Your task to perform on an android device: empty trash in the gmail app Image 0: 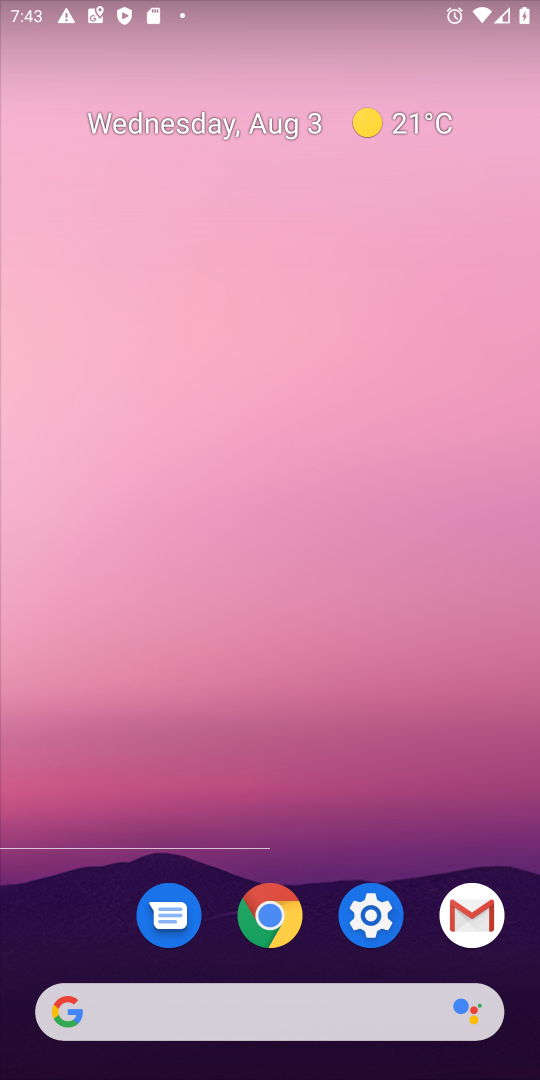
Step 0: drag from (387, 992) to (286, 236)
Your task to perform on an android device: empty trash in the gmail app Image 1: 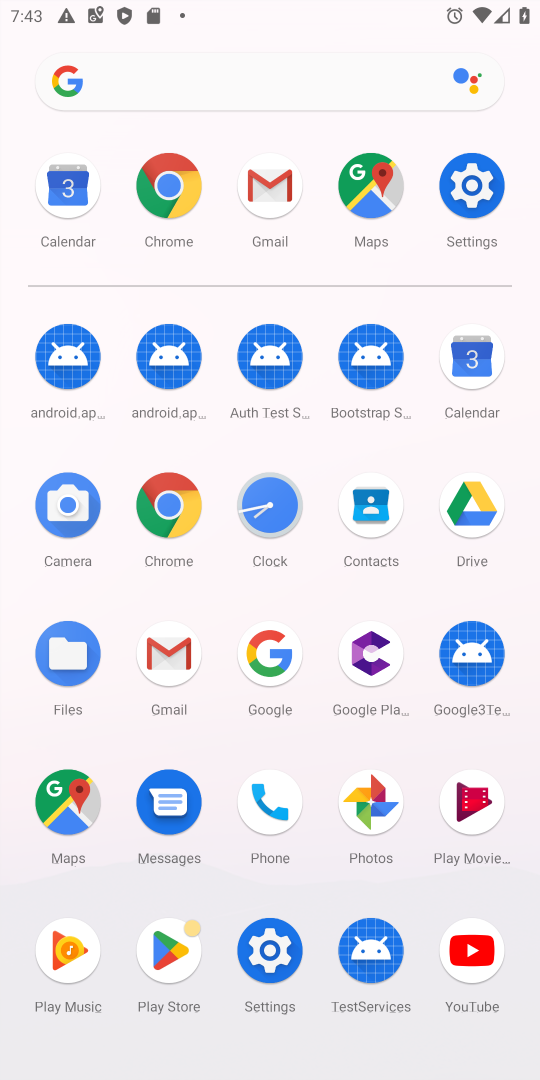
Step 1: click (168, 647)
Your task to perform on an android device: empty trash in the gmail app Image 2: 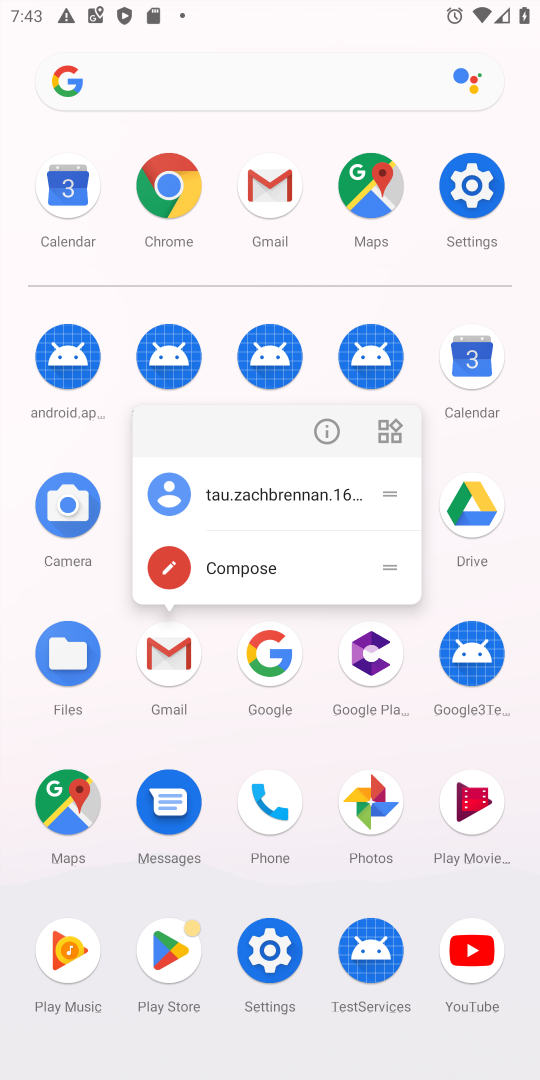
Step 2: click (168, 649)
Your task to perform on an android device: empty trash in the gmail app Image 3: 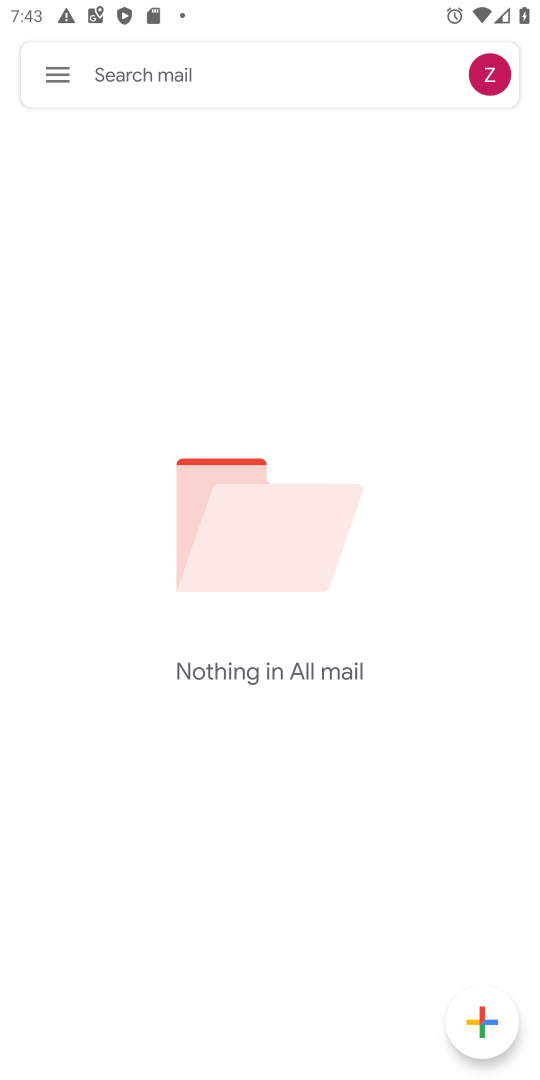
Step 3: click (62, 89)
Your task to perform on an android device: empty trash in the gmail app Image 4: 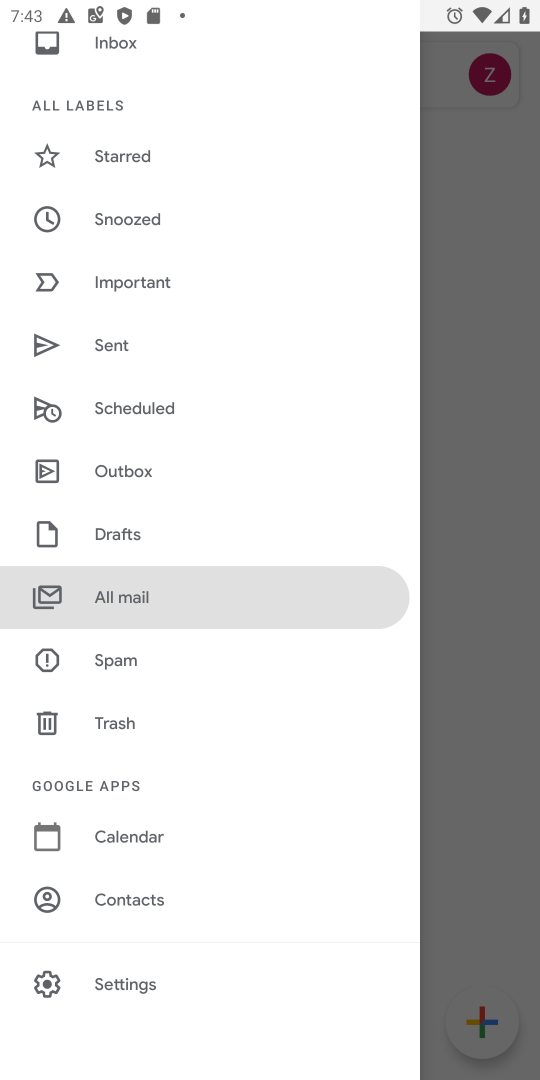
Step 4: click (157, 721)
Your task to perform on an android device: empty trash in the gmail app Image 5: 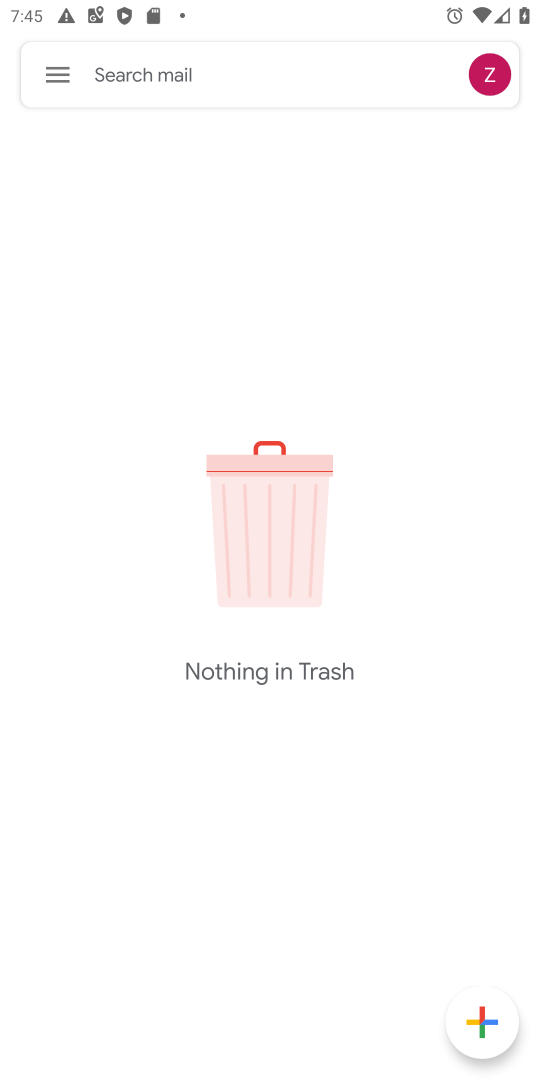
Step 5: task complete